Your task to perform on an android device: star an email in the gmail app Image 0: 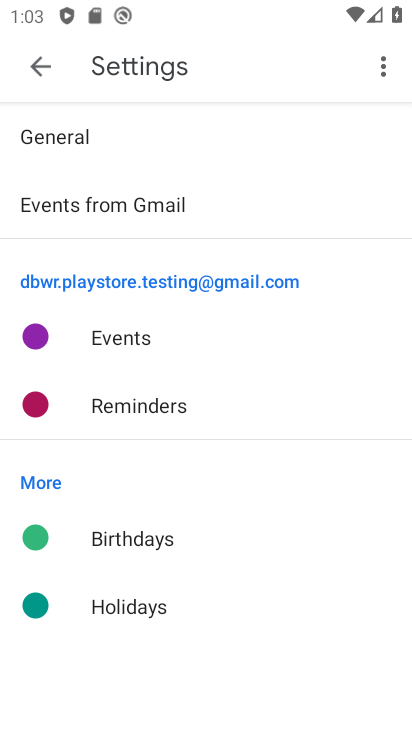
Step 0: press home button
Your task to perform on an android device: star an email in the gmail app Image 1: 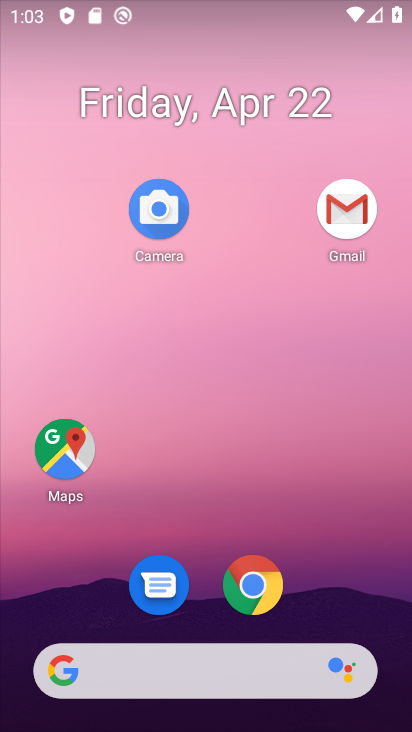
Step 1: click (356, 207)
Your task to perform on an android device: star an email in the gmail app Image 2: 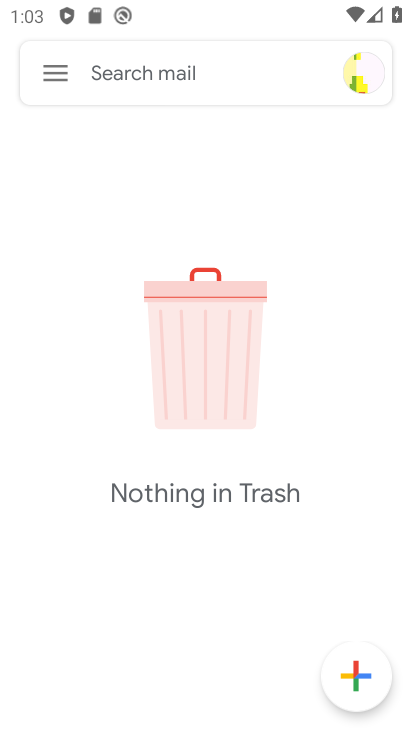
Step 2: click (56, 65)
Your task to perform on an android device: star an email in the gmail app Image 3: 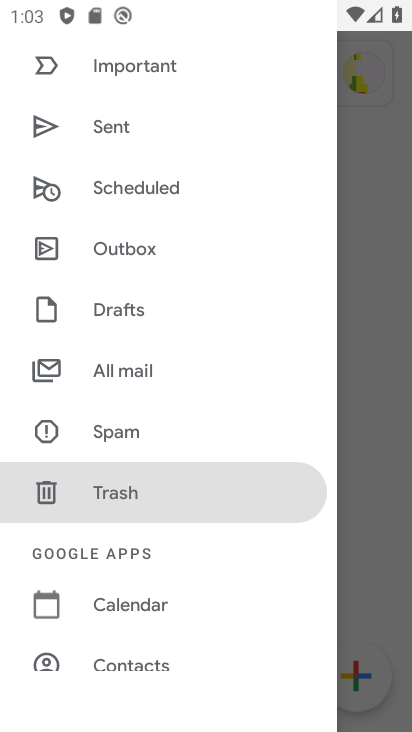
Step 3: click (149, 366)
Your task to perform on an android device: star an email in the gmail app Image 4: 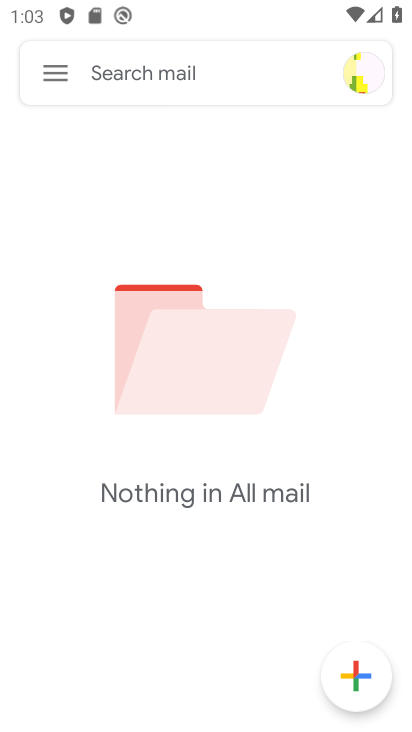
Step 4: task complete